Your task to perform on an android device: Go to ESPN.com Image 0: 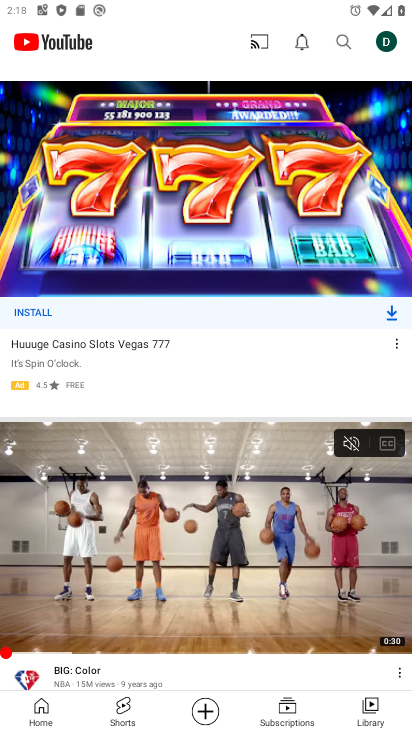
Step 0: press home button
Your task to perform on an android device: Go to ESPN.com Image 1: 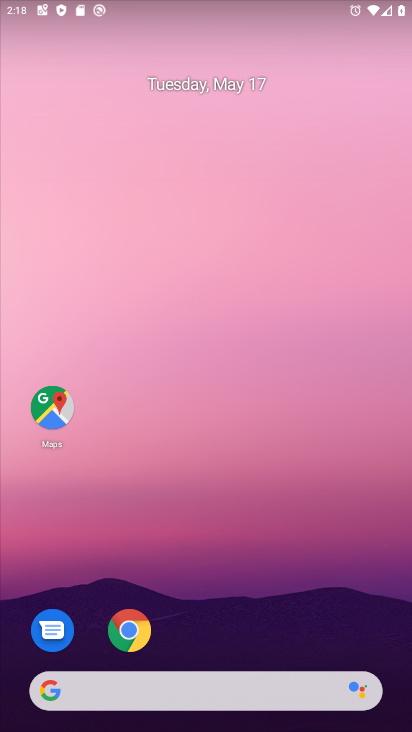
Step 1: drag from (335, 624) to (293, 122)
Your task to perform on an android device: Go to ESPN.com Image 2: 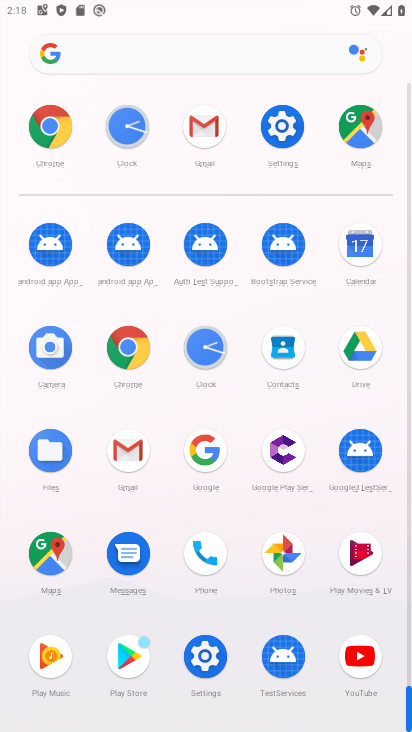
Step 2: click (194, 57)
Your task to perform on an android device: Go to ESPN.com Image 3: 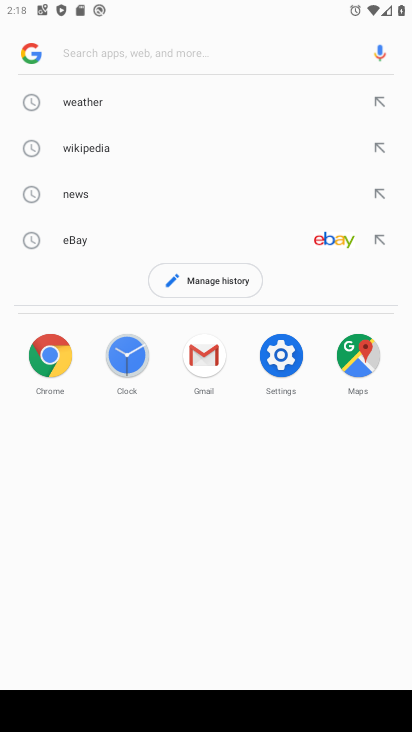
Step 3: click (52, 373)
Your task to perform on an android device: Go to ESPN.com Image 4: 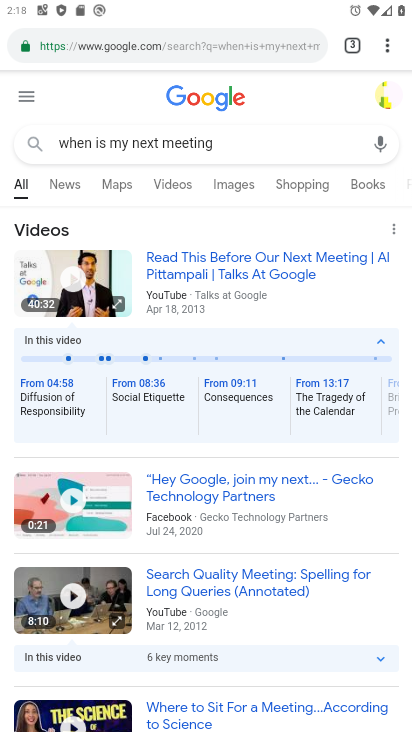
Step 4: click (224, 141)
Your task to perform on an android device: Go to ESPN.com Image 5: 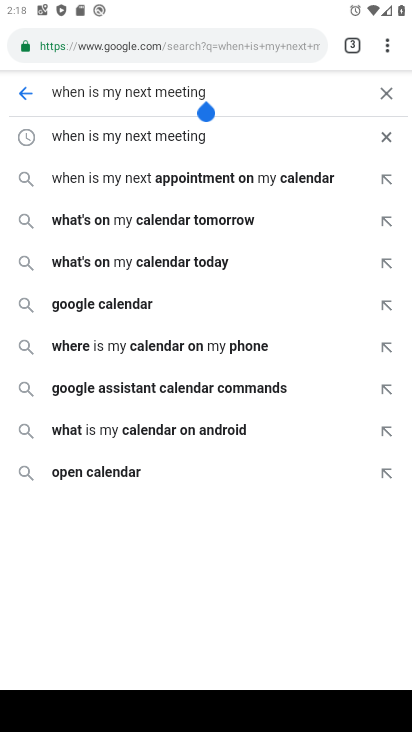
Step 5: click (386, 96)
Your task to perform on an android device: Go to ESPN.com Image 6: 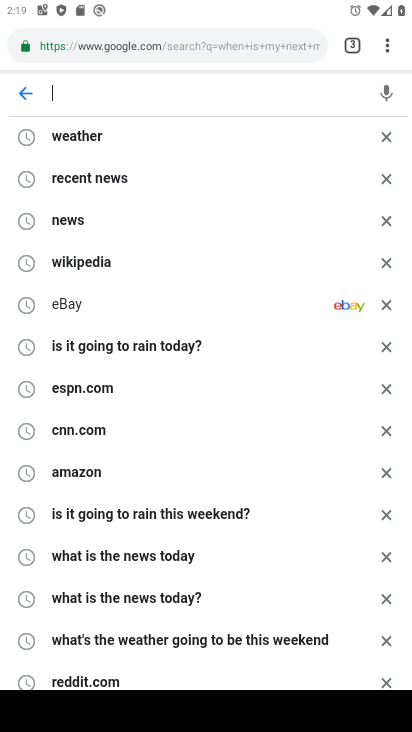
Step 6: type "espn.com"
Your task to perform on an android device: Go to ESPN.com Image 7: 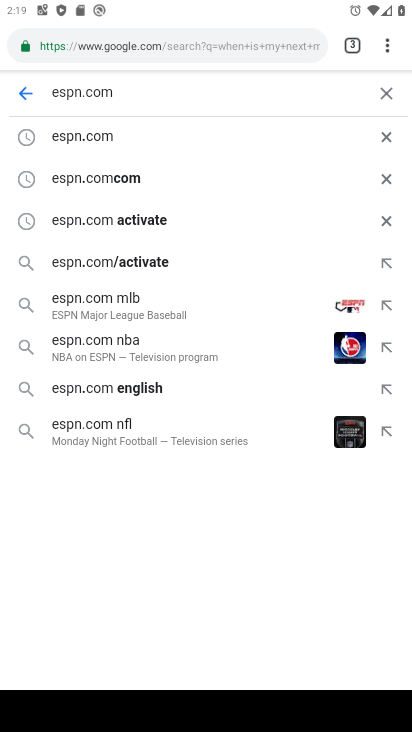
Step 7: click (99, 137)
Your task to perform on an android device: Go to ESPN.com Image 8: 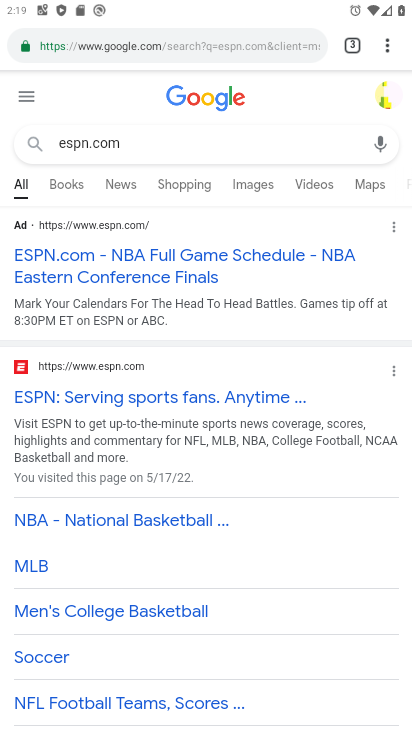
Step 8: click (175, 267)
Your task to perform on an android device: Go to ESPN.com Image 9: 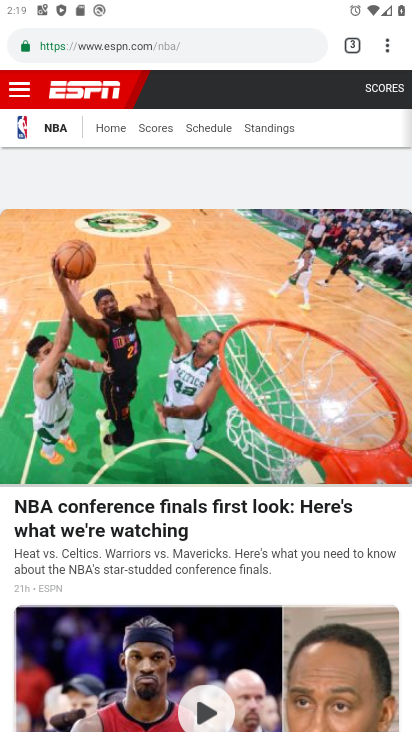
Step 9: task complete